Your task to perform on an android device: turn on javascript in the chrome app Image 0: 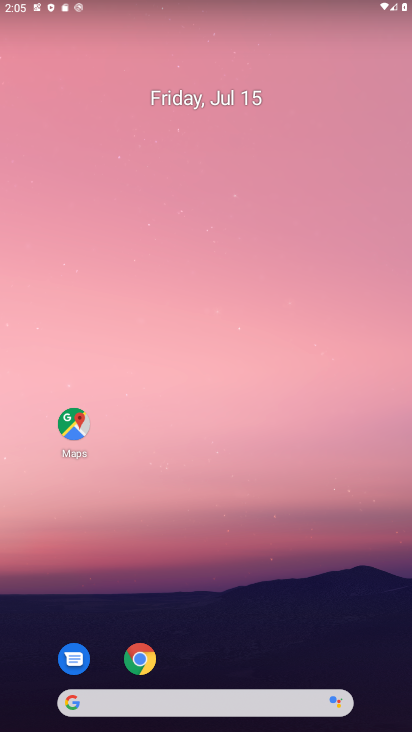
Step 0: drag from (243, 615) to (271, 88)
Your task to perform on an android device: turn on javascript in the chrome app Image 1: 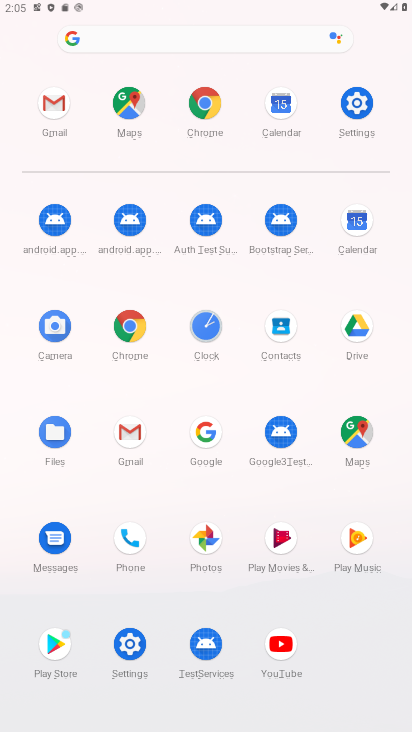
Step 1: click (129, 327)
Your task to perform on an android device: turn on javascript in the chrome app Image 2: 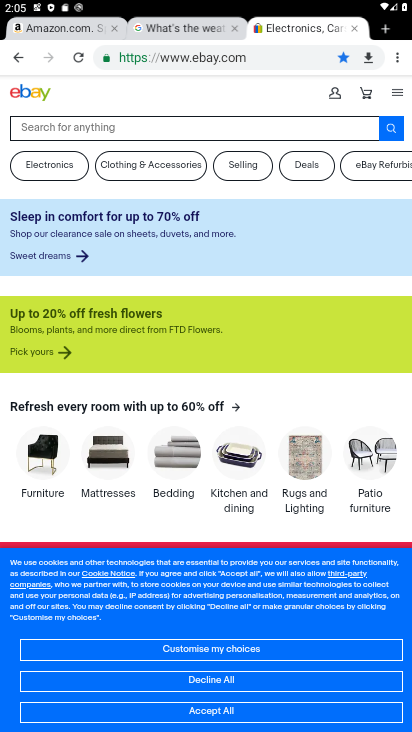
Step 2: click (396, 54)
Your task to perform on an android device: turn on javascript in the chrome app Image 3: 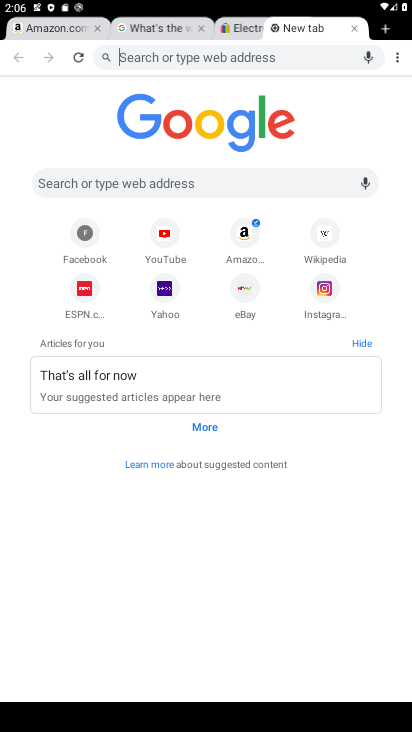
Step 3: click (399, 53)
Your task to perform on an android device: turn on javascript in the chrome app Image 4: 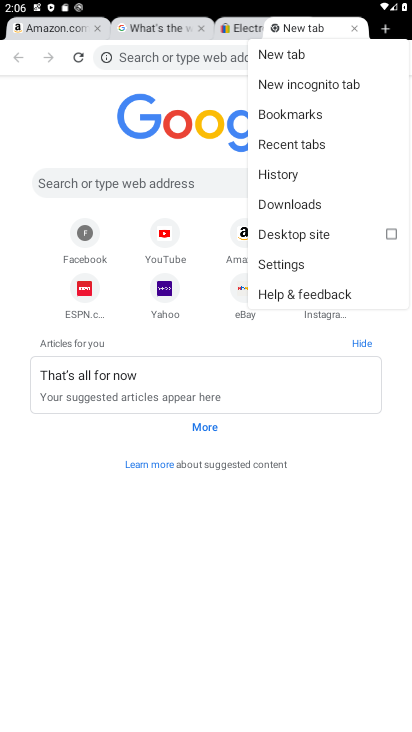
Step 4: click (287, 259)
Your task to perform on an android device: turn on javascript in the chrome app Image 5: 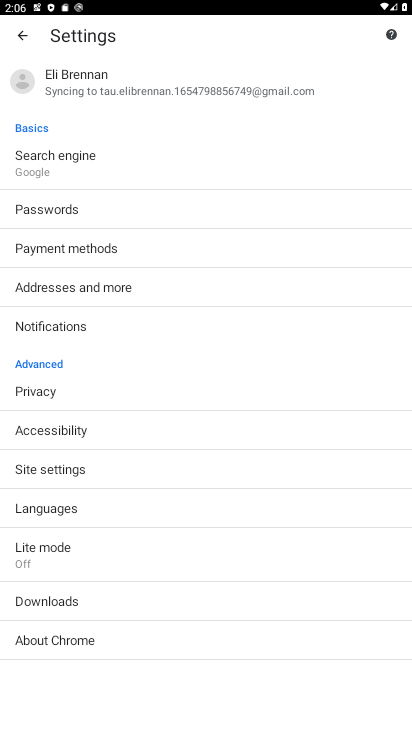
Step 5: click (110, 461)
Your task to perform on an android device: turn on javascript in the chrome app Image 6: 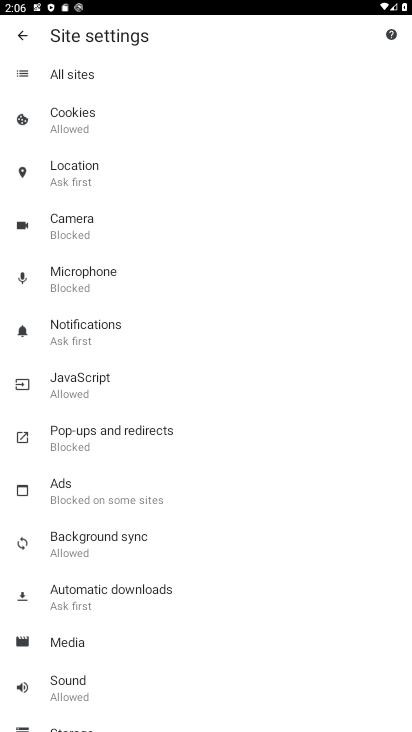
Step 6: click (105, 388)
Your task to perform on an android device: turn on javascript in the chrome app Image 7: 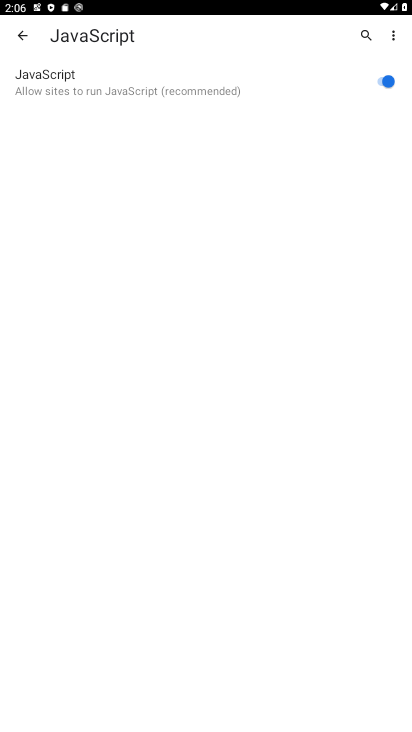
Step 7: task complete